Your task to perform on an android device: change your default location settings in chrome Image 0: 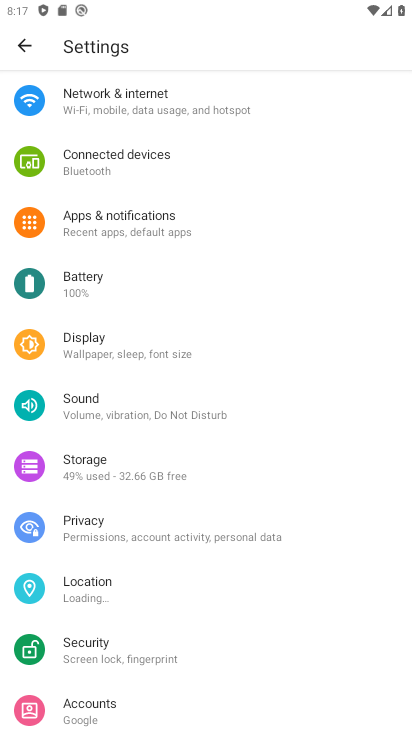
Step 0: press home button
Your task to perform on an android device: change your default location settings in chrome Image 1: 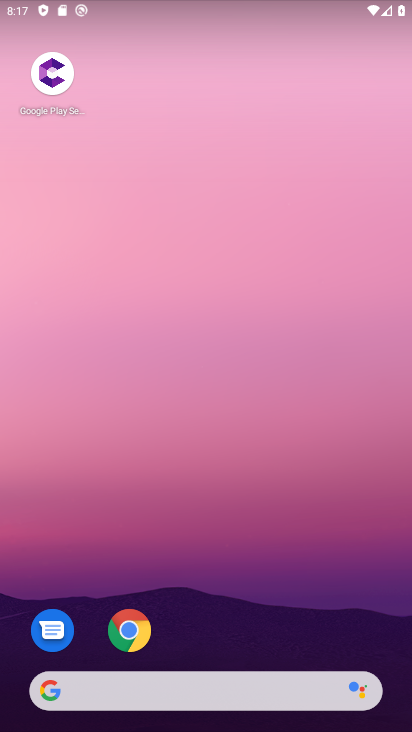
Step 1: click (130, 632)
Your task to perform on an android device: change your default location settings in chrome Image 2: 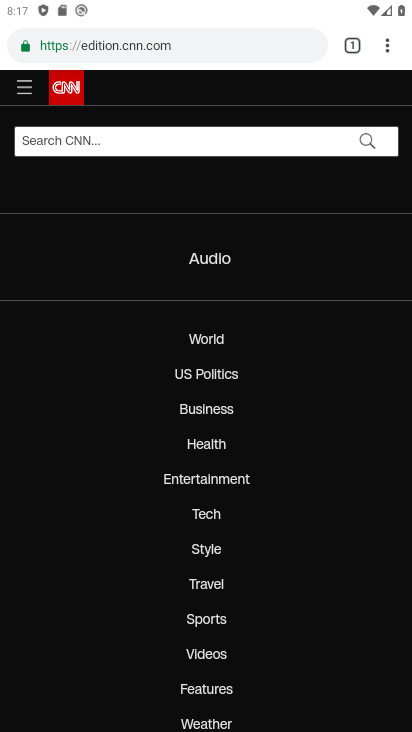
Step 2: click (388, 46)
Your task to perform on an android device: change your default location settings in chrome Image 3: 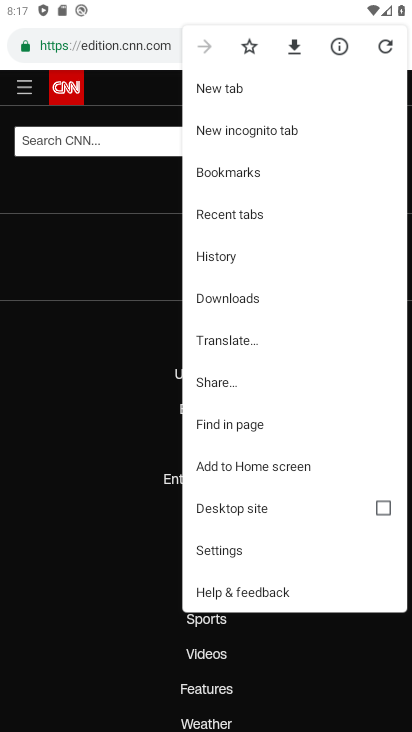
Step 3: click (224, 550)
Your task to perform on an android device: change your default location settings in chrome Image 4: 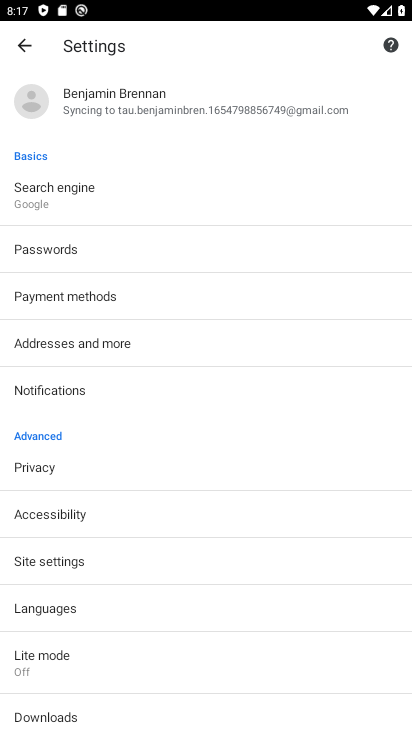
Step 4: click (69, 559)
Your task to perform on an android device: change your default location settings in chrome Image 5: 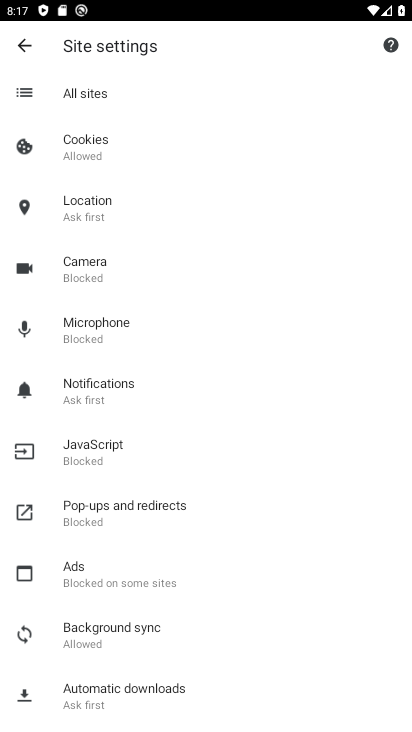
Step 5: click (101, 214)
Your task to perform on an android device: change your default location settings in chrome Image 6: 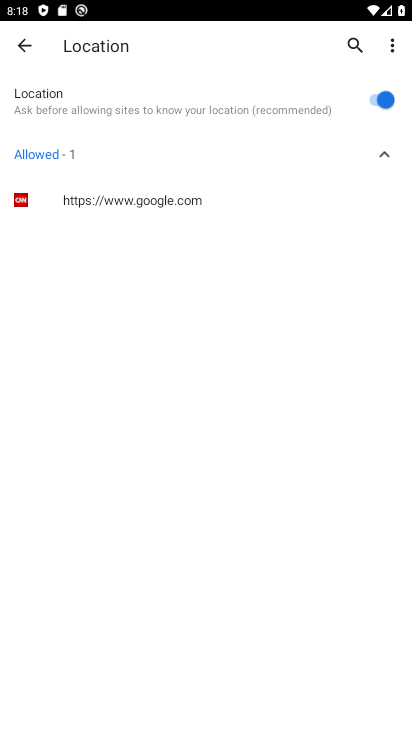
Step 6: click (385, 93)
Your task to perform on an android device: change your default location settings in chrome Image 7: 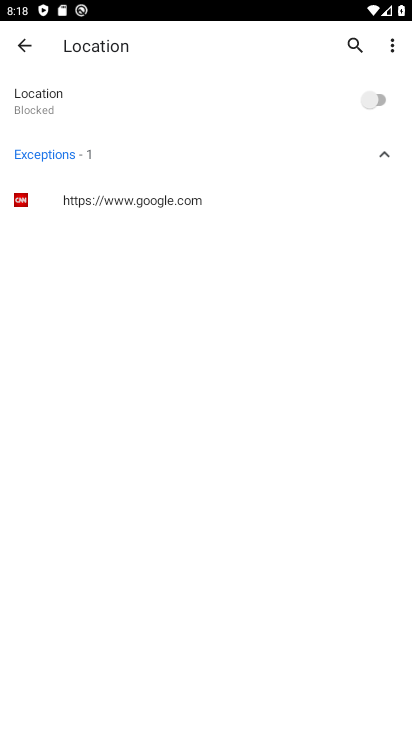
Step 7: task complete